Your task to perform on an android device: change the clock style Image 0: 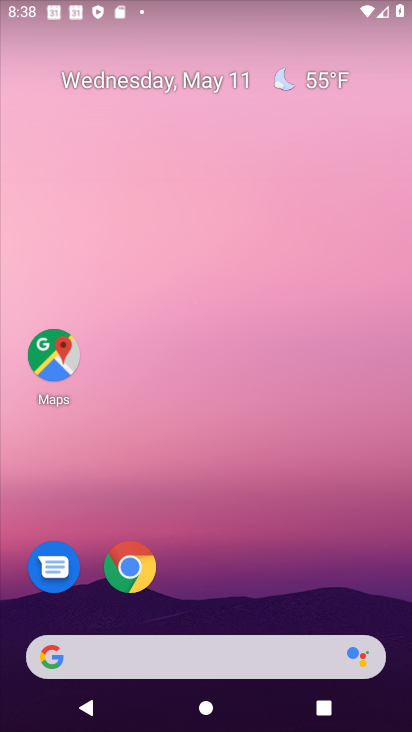
Step 0: drag from (227, 602) to (325, 31)
Your task to perform on an android device: change the clock style Image 1: 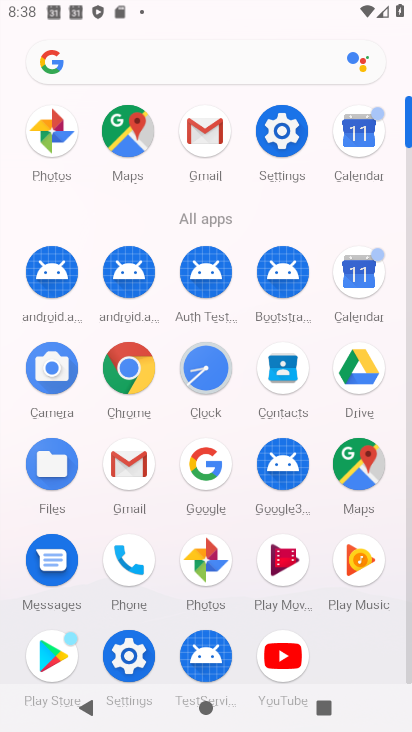
Step 1: click (218, 373)
Your task to perform on an android device: change the clock style Image 2: 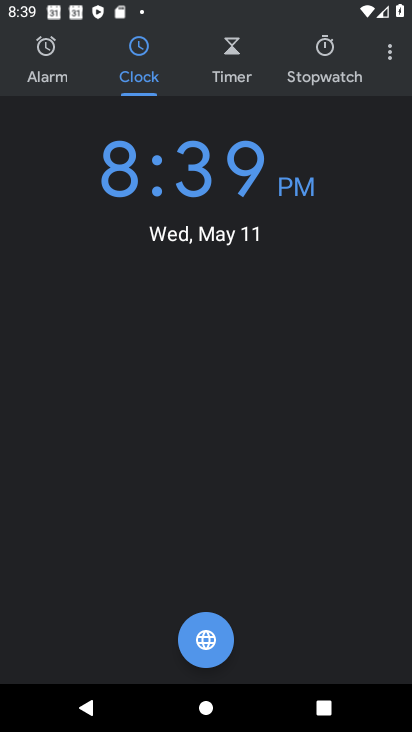
Step 2: click (384, 50)
Your task to perform on an android device: change the clock style Image 3: 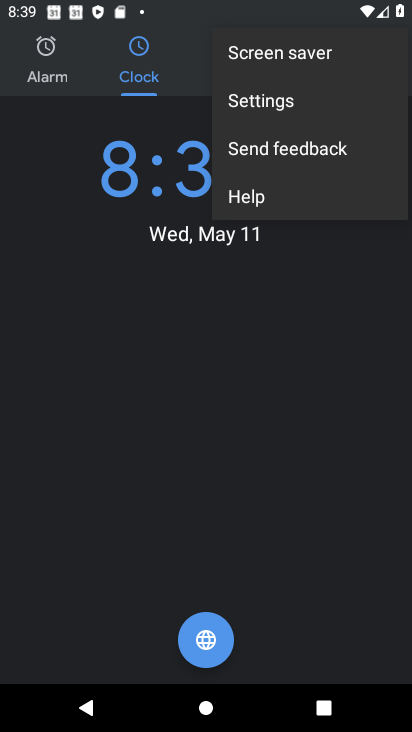
Step 3: click (286, 108)
Your task to perform on an android device: change the clock style Image 4: 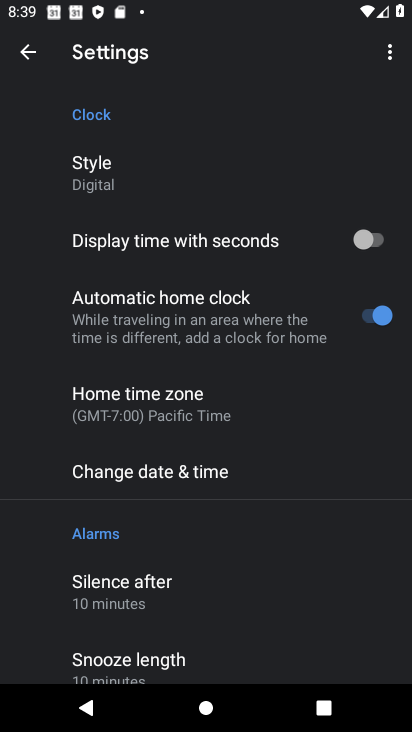
Step 4: click (130, 182)
Your task to perform on an android device: change the clock style Image 5: 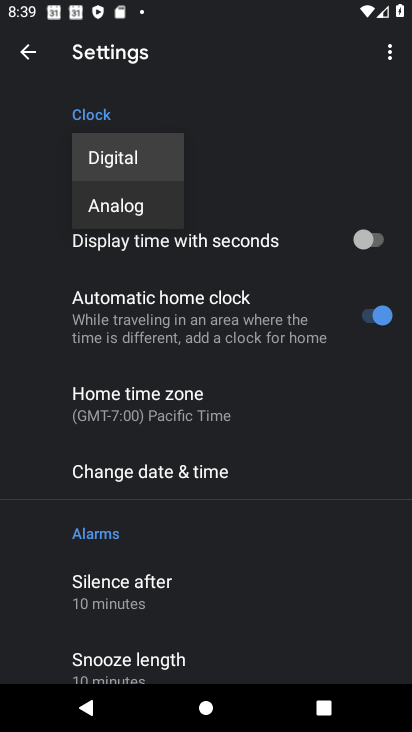
Step 5: click (131, 205)
Your task to perform on an android device: change the clock style Image 6: 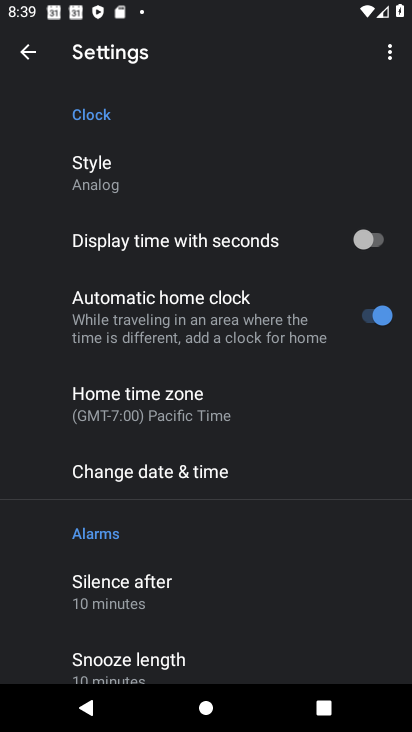
Step 6: task complete